Your task to perform on an android device: check the backup settings in the google photos Image 0: 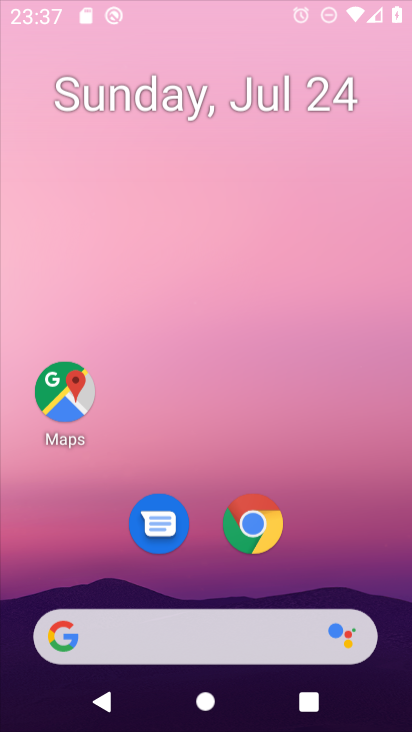
Step 0: press home button
Your task to perform on an android device: check the backup settings in the google photos Image 1: 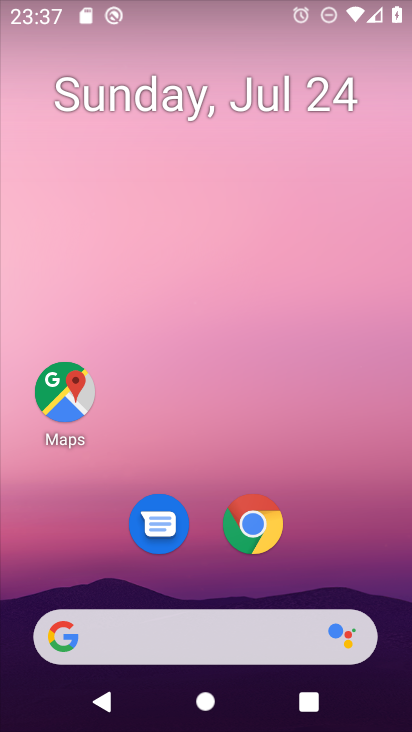
Step 1: drag from (195, 623) to (341, 167)
Your task to perform on an android device: check the backup settings in the google photos Image 2: 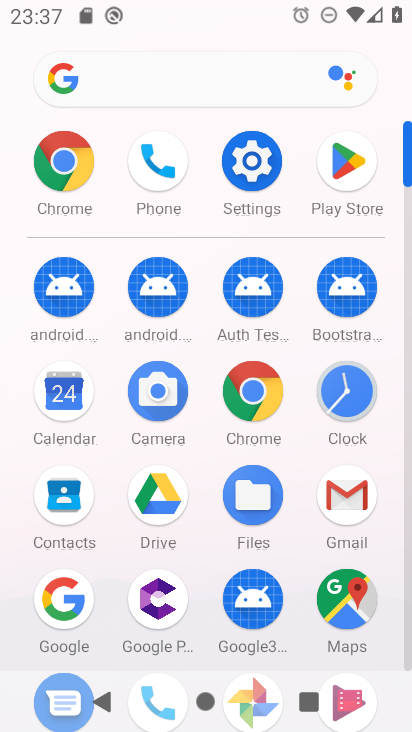
Step 2: drag from (200, 581) to (338, 193)
Your task to perform on an android device: check the backup settings in the google photos Image 3: 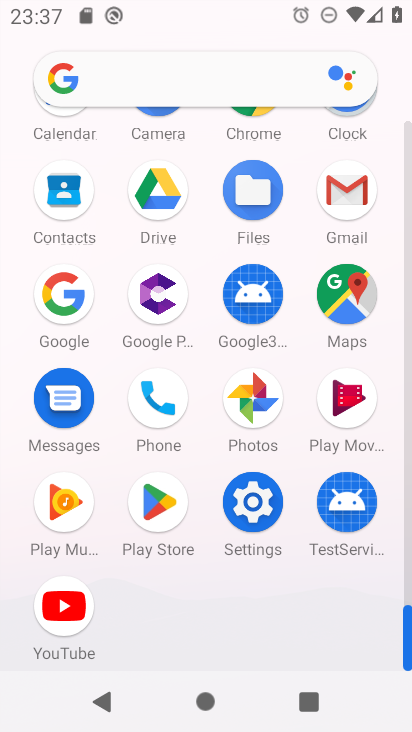
Step 3: click (254, 398)
Your task to perform on an android device: check the backup settings in the google photos Image 4: 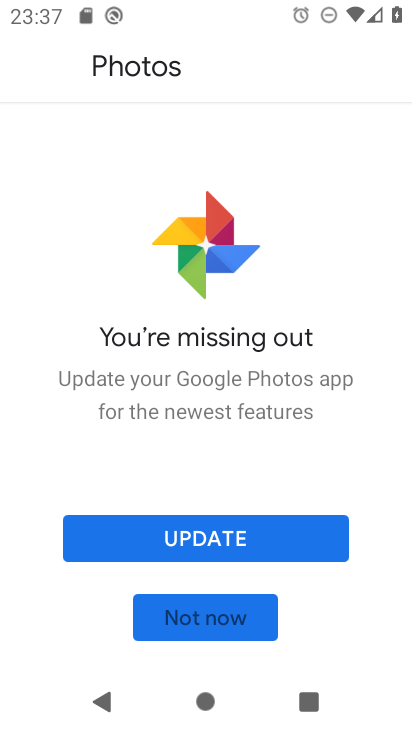
Step 4: click (284, 418)
Your task to perform on an android device: check the backup settings in the google photos Image 5: 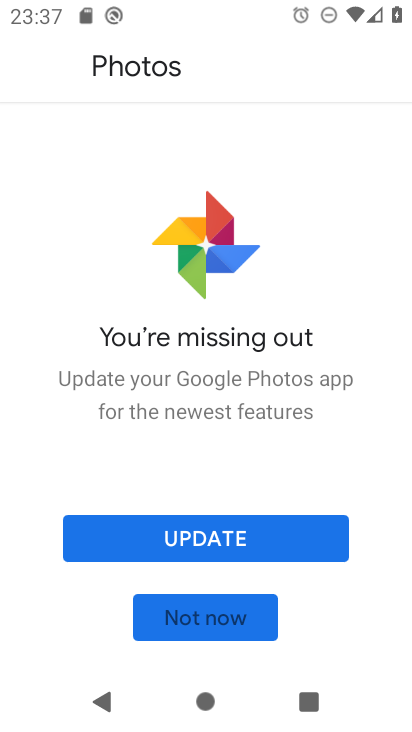
Step 5: click (215, 626)
Your task to perform on an android device: check the backup settings in the google photos Image 6: 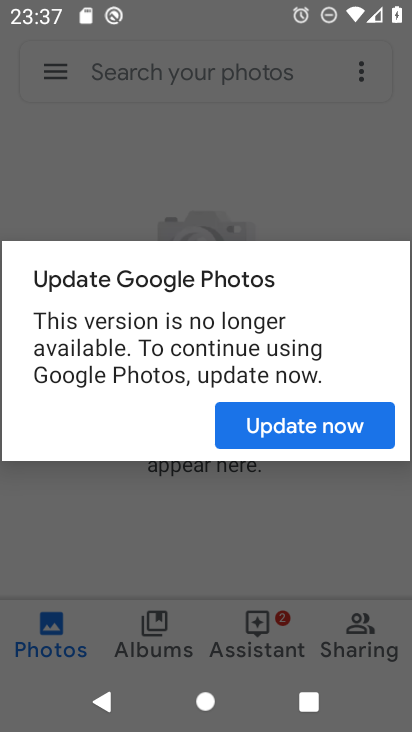
Step 6: click (311, 428)
Your task to perform on an android device: check the backup settings in the google photos Image 7: 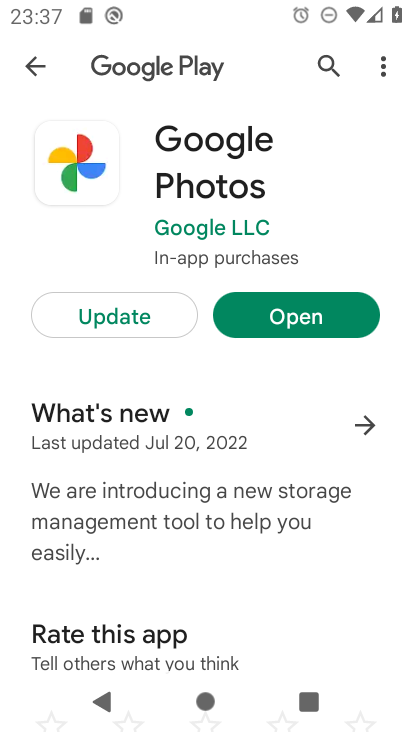
Step 7: click (320, 326)
Your task to perform on an android device: check the backup settings in the google photos Image 8: 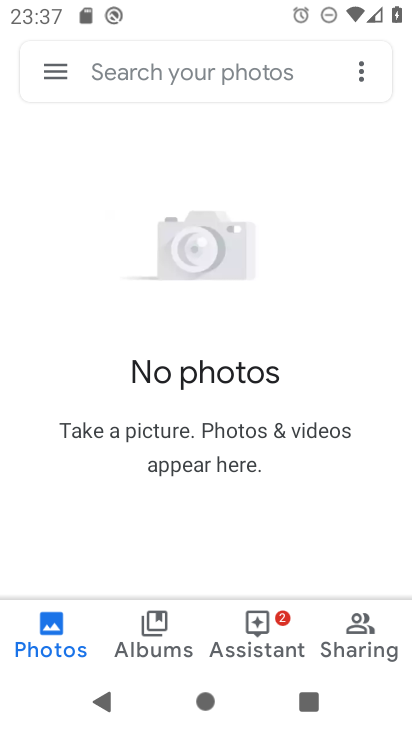
Step 8: click (60, 66)
Your task to perform on an android device: check the backup settings in the google photos Image 9: 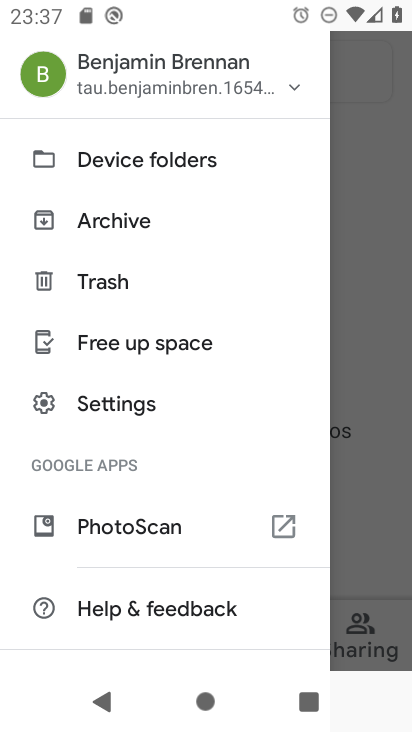
Step 9: click (127, 398)
Your task to perform on an android device: check the backup settings in the google photos Image 10: 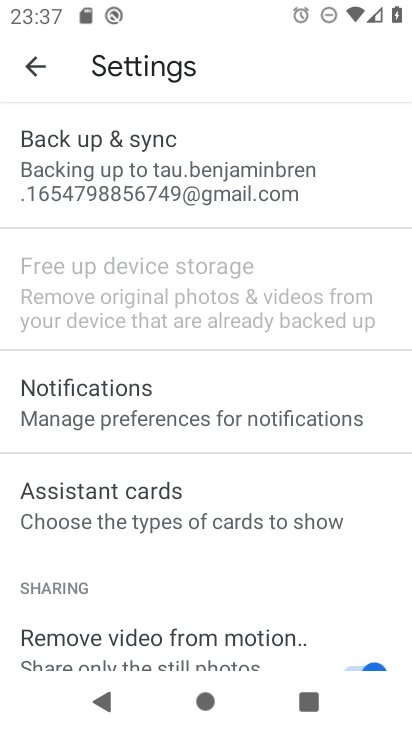
Step 10: click (238, 201)
Your task to perform on an android device: check the backup settings in the google photos Image 11: 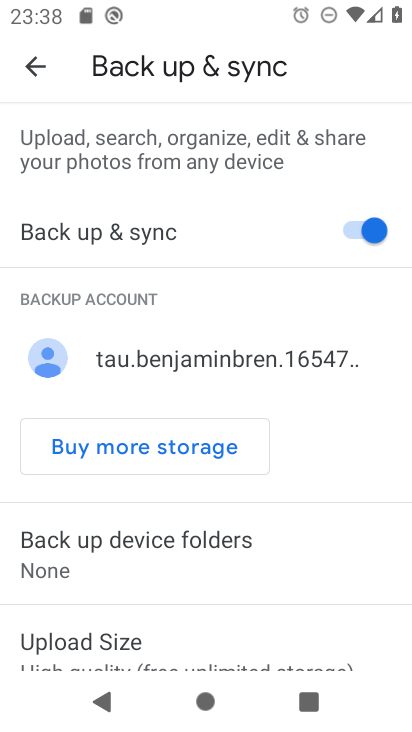
Step 11: task complete